Your task to perform on an android device: Open Google Chrome and open the bookmarks view Image 0: 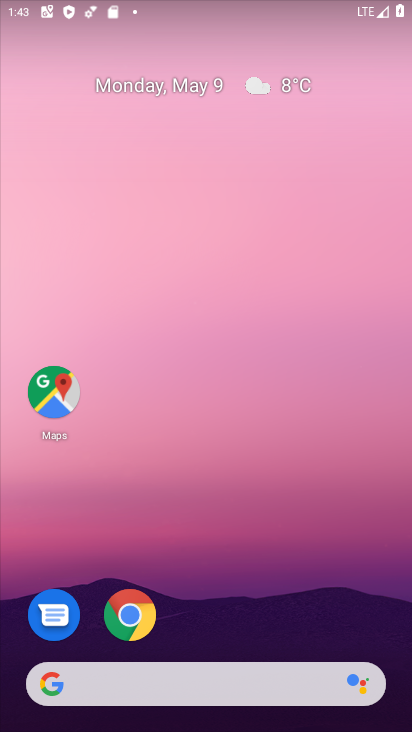
Step 0: click (127, 613)
Your task to perform on an android device: Open Google Chrome and open the bookmarks view Image 1: 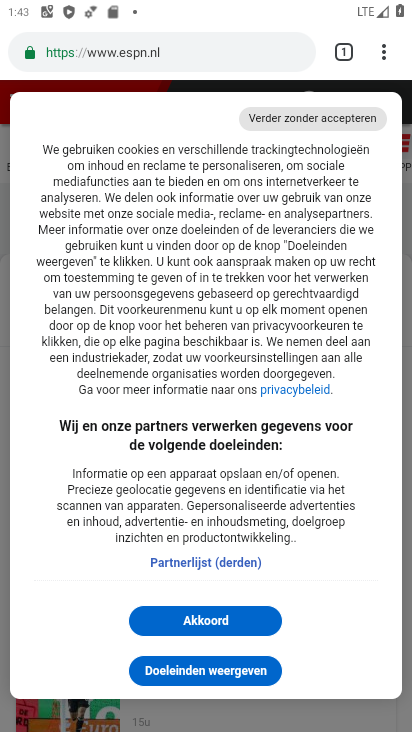
Step 1: click (384, 57)
Your task to perform on an android device: Open Google Chrome and open the bookmarks view Image 2: 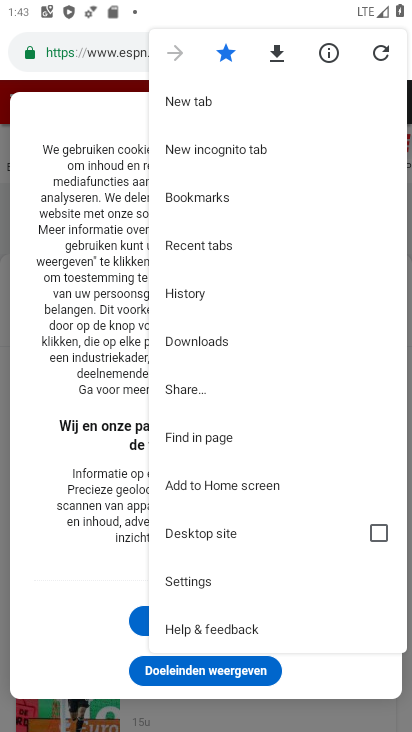
Step 2: click (192, 197)
Your task to perform on an android device: Open Google Chrome and open the bookmarks view Image 3: 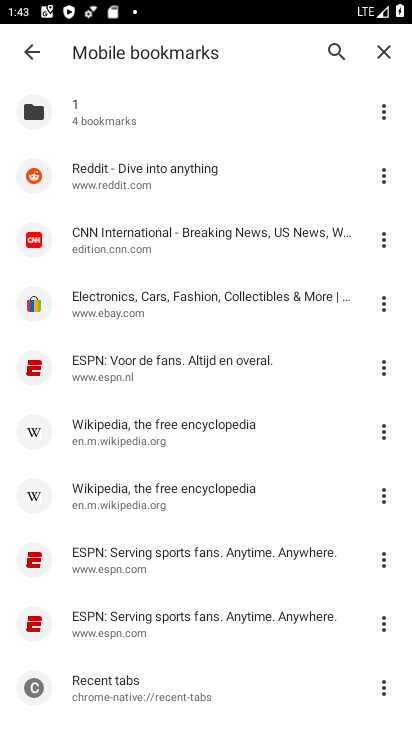
Step 3: task complete